Your task to perform on an android device: Search for vegetarian restaurants on Maps Image 0: 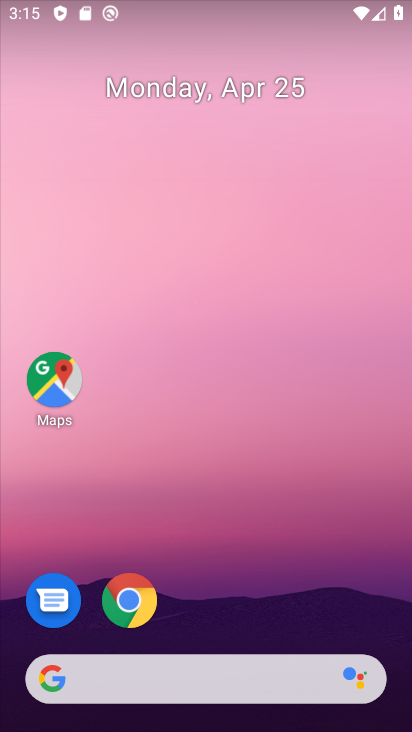
Step 0: drag from (274, 460) to (258, 18)
Your task to perform on an android device: Search for vegetarian restaurants on Maps Image 1: 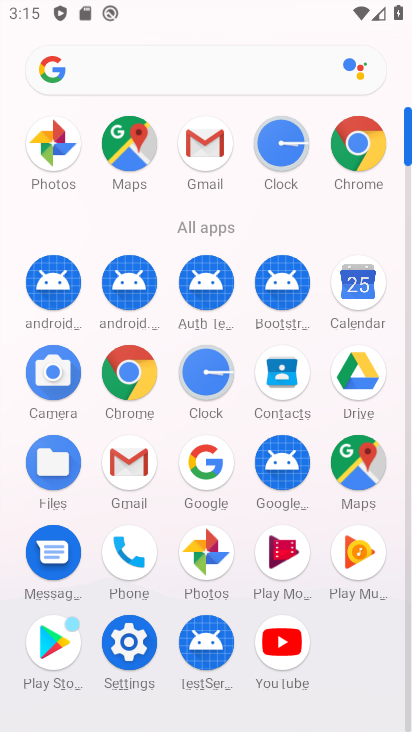
Step 1: drag from (14, 540) to (14, 319)
Your task to perform on an android device: Search for vegetarian restaurants on Maps Image 2: 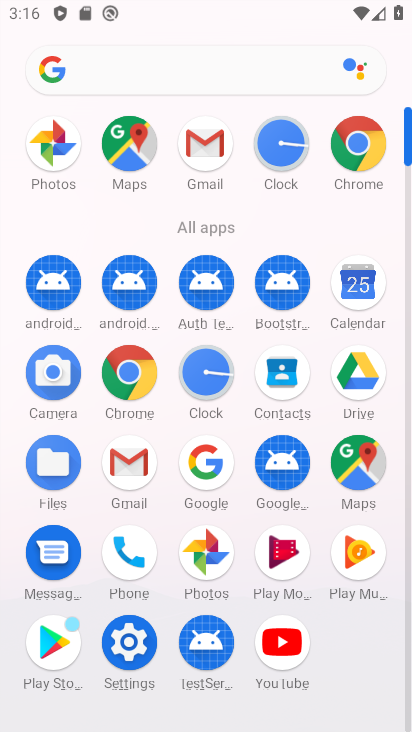
Step 2: click (361, 457)
Your task to perform on an android device: Search for vegetarian restaurants on Maps Image 3: 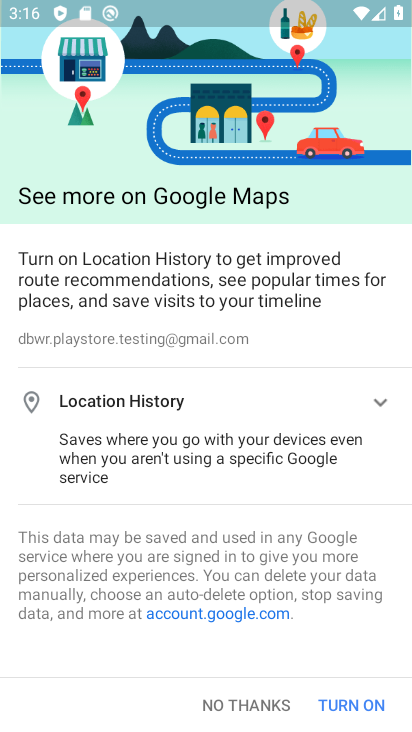
Step 3: click (327, 707)
Your task to perform on an android device: Search for vegetarian restaurants on Maps Image 4: 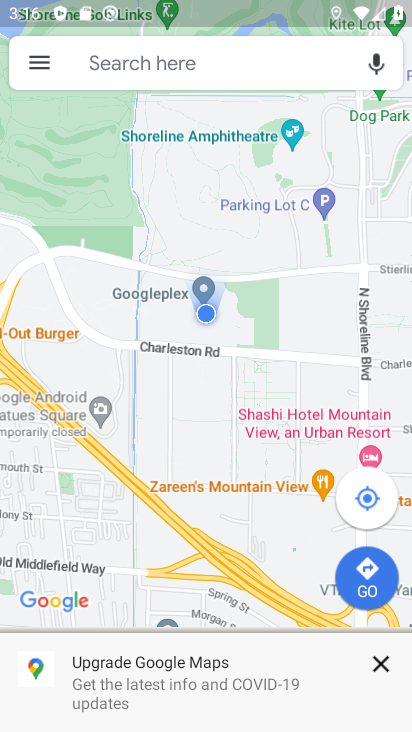
Step 4: click (221, 71)
Your task to perform on an android device: Search for vegetarian restaurants on Maps Image 5: 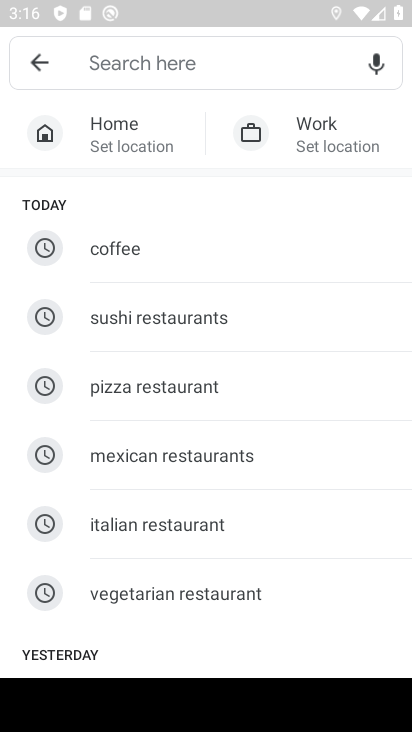
Step 5: click (255, 580)
Your task to perform on an android device: Search for vegetarian restaurants on Maps Image 6: 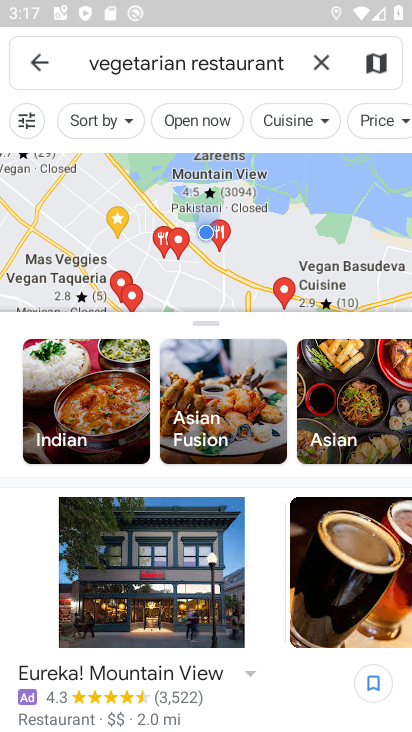
Step 6: task complete